Your task to perform on an android device: open wifi settings Image 0: 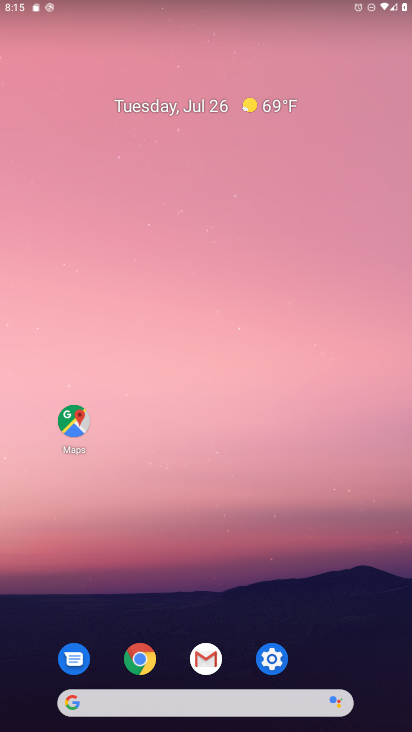
Step 0: press home button
Your task to perform on an android device: open wifi settings Image 1: 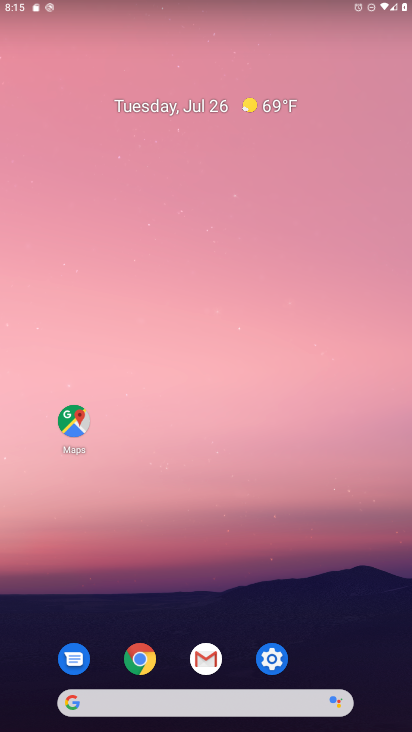
Step 1: click (278, 665)
Your task to perform on an android device: open wifi settings Image 2: 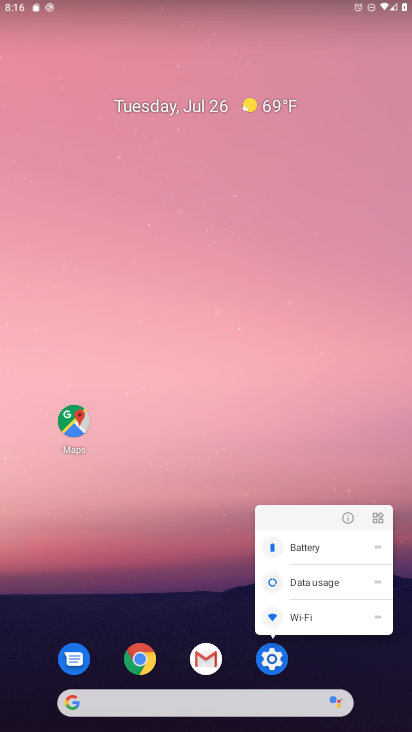
Step 2: click (272, 668)
Your task to perform on an android device: open wifi settings Image 3: 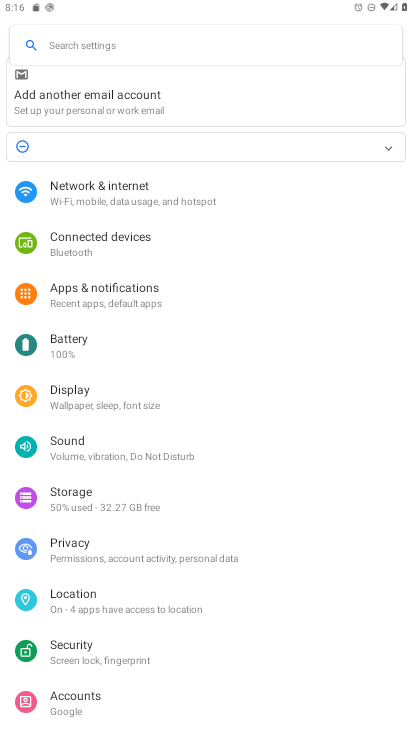
Step 3: click (138, 194)
Your task to perform on an android device: open wifi settings Image 4: 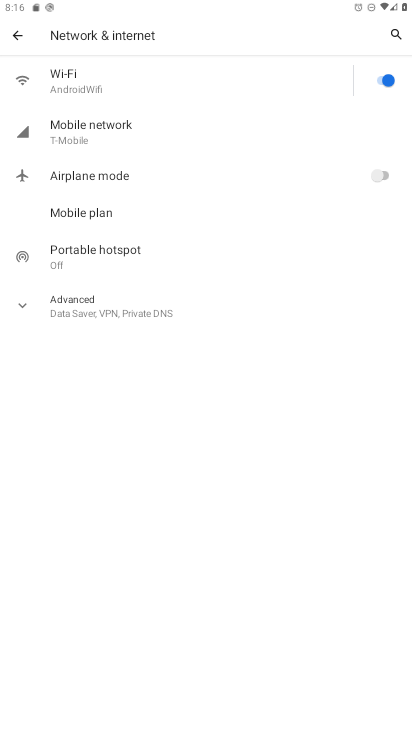
Step 4: click (107, 88)
Your task to perform on an android device: open wifi settings Image 5: 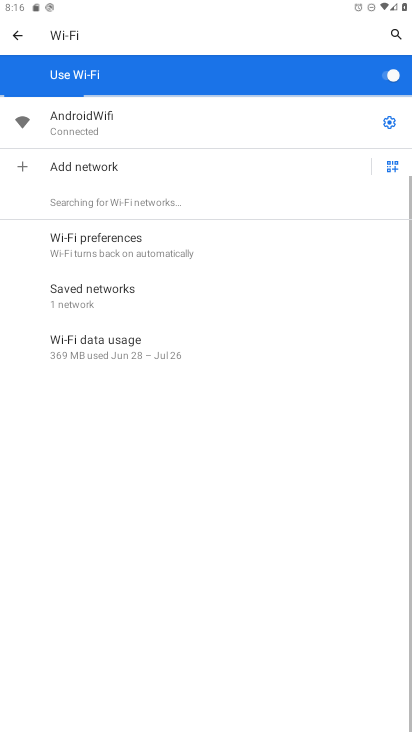
Step 5: task complete